Your task to perform on an android device: Go to battery settings Image 0: 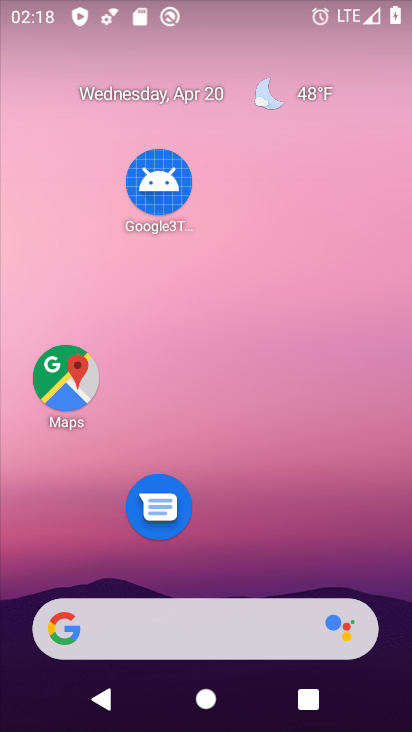
Step 0: drag from (258, 573) to (239, 6)
Your task to perform on an android device: Go to battery settings Image 1: 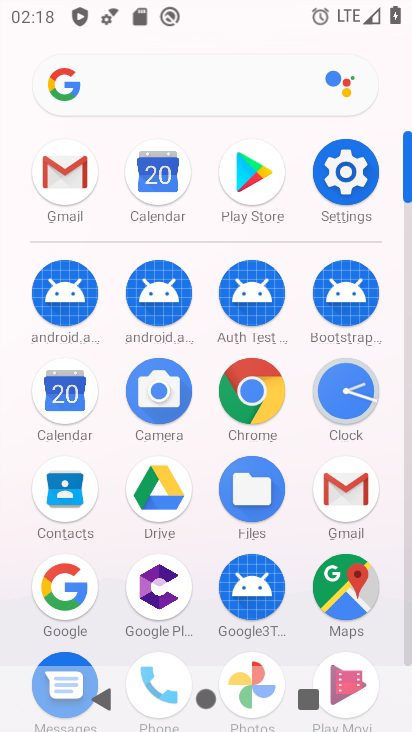
Step 1: click (348, 167)
Your task to perform on an android device: Go to battery settings Image 2: 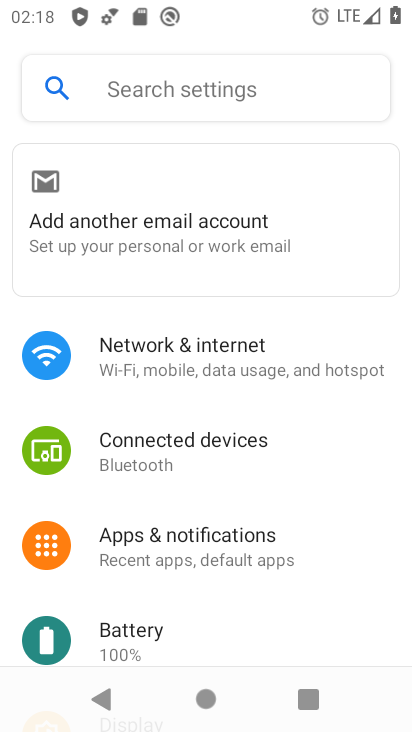
Step 2: drag from (146, 577) to (107, 304)
Your task to perform on an android device: Go to battery settings Image 3: 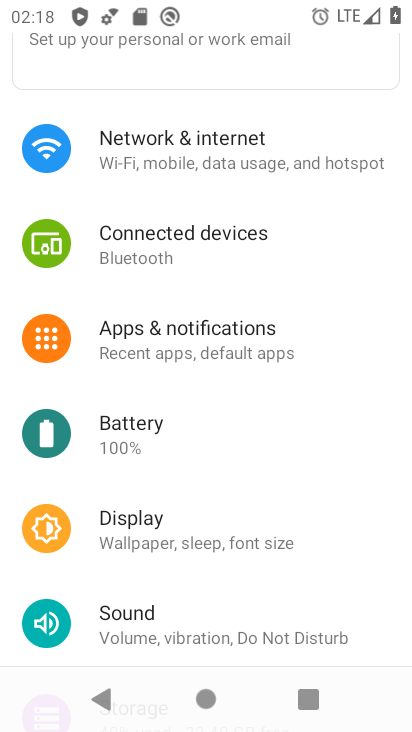
Step 3: click (113, 427)
Your task to perform on an android device: Go to battery settings Image 4: 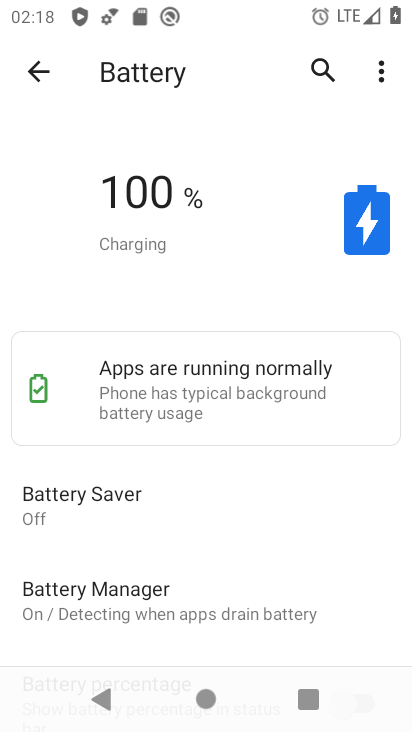
Step 4: task complete